Your task to perform on an android device: Open the calendar app, open the side menu, and click the "Day" option Image 0: 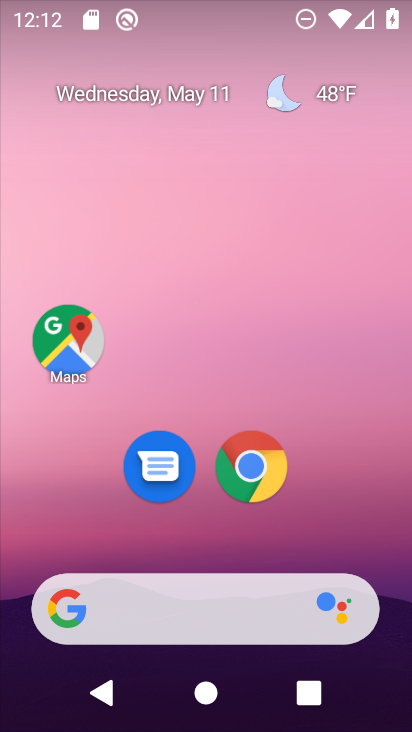
Step 0: drag from (208, 543) to (237, 45)
Your task to perform on an android device: Open the calendar app, open the side menu, and click the "Day" option Image 1: 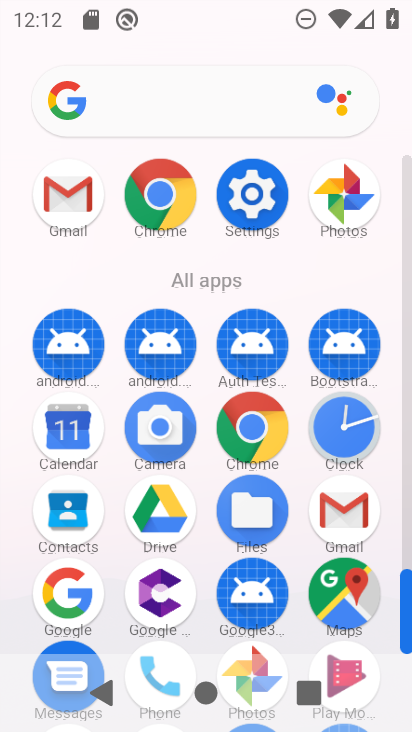
Step 1: click (66, 427)
Your task to perform on an android device: Open the calendar app, open the side menu, and click the "Day" option Image 2: 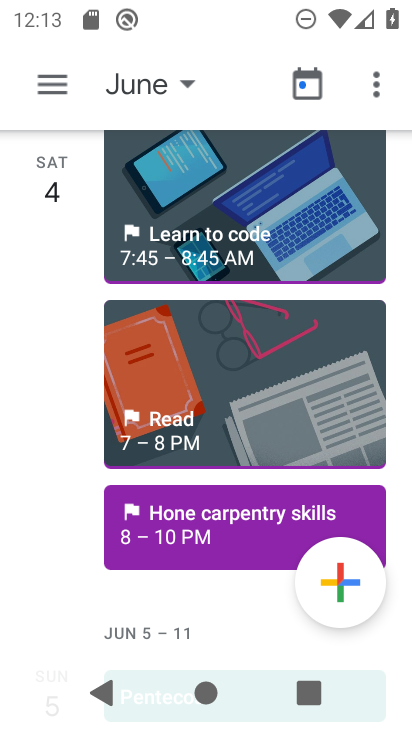
Step 2: click (54, 81)
Your task to perform on an android device: Open the calendar app, open the side menu, and click the "Day" option Image 3: 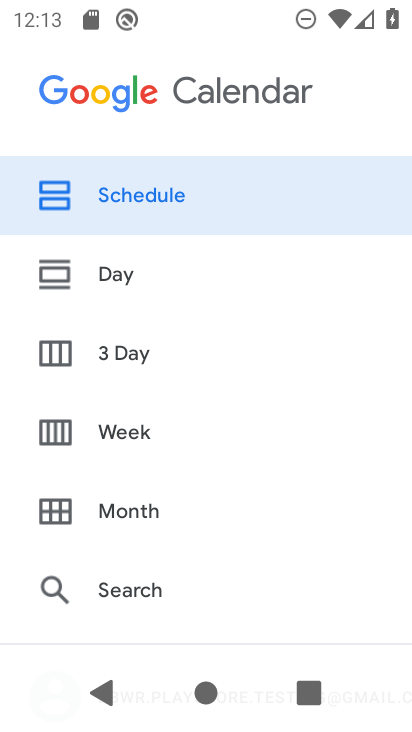
Step 3: click (84, 271)
Your task to perform on an android device: Open the calendar app, open the side menu, and click the "Day" option Image 4: 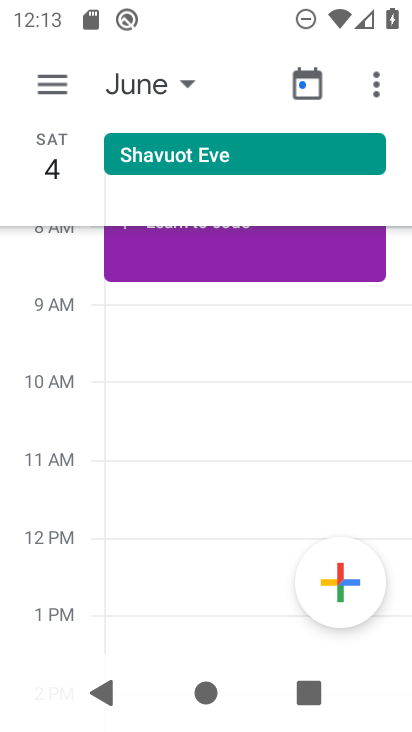
Step 4: task complete